Your task to perform on an android device: open a bookmark in the chrome app Image 0: 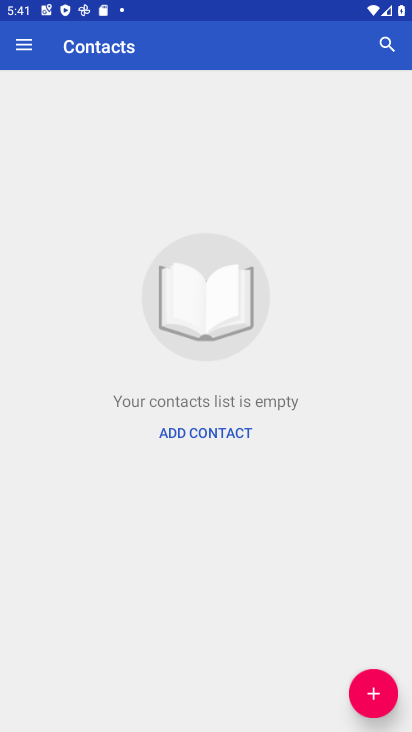
Step 0: press back button
Your task to perform on an android device: open a bookmark in the chrome app Image 1: 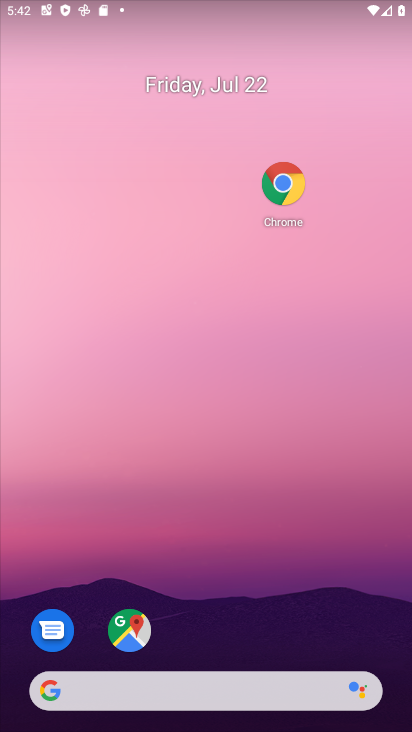
Step 1: click (276, 192)
Your task to perform on an android device: open a bookmark in the chrome app Image 2: 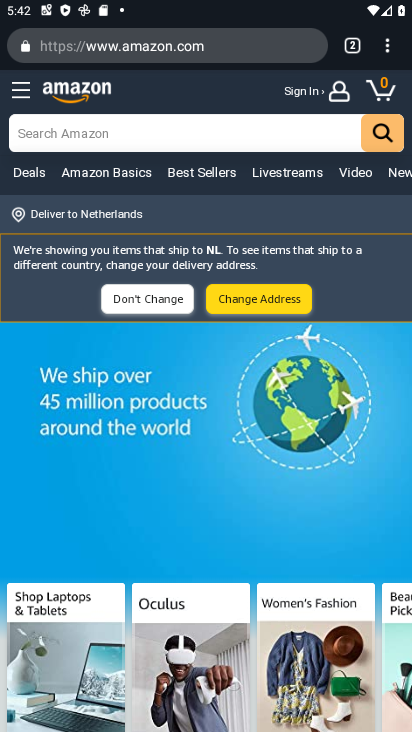
Step 2: click (386, 46)
Your task to perform on an android device: open a bookmark in the chrome app Image 3: 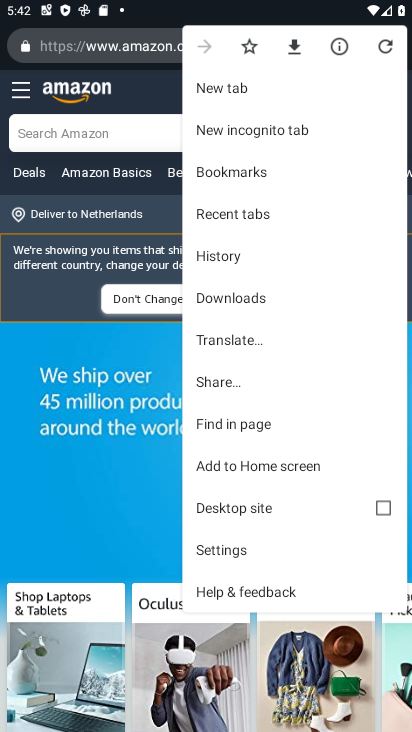
Step 3: click (251, 174)
Your task to perform on an android device: open a bookmark in the chrome app Image 4: 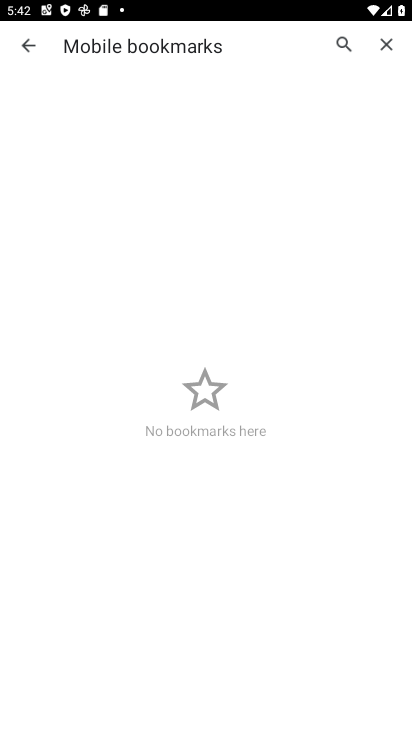
Step 4: task complete